Your task to perform on an android device: Go to location settings Image 0: 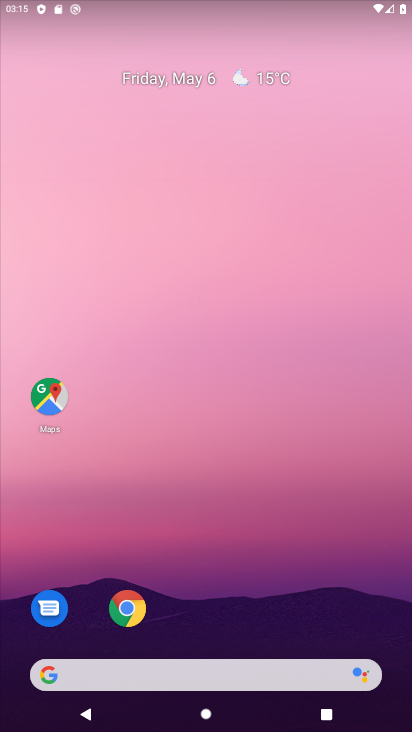
Step 0: drag from (233, 669) to (247, 235)
Your task to perform on an android device: Go to location settings Image 1: 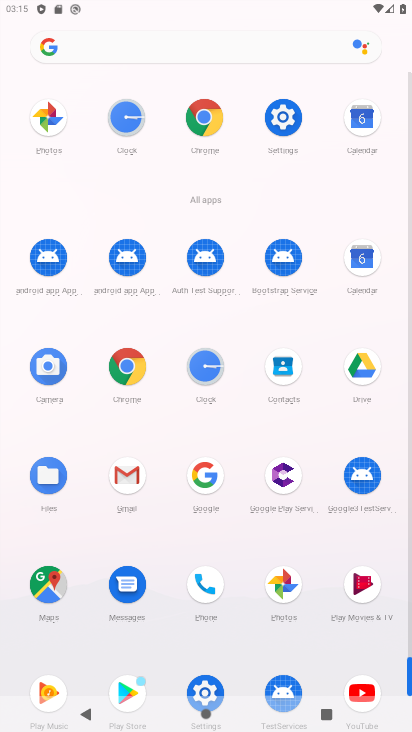
Step 1: click (290, 126)
Your task to perform on an android device: Go to location settings Image 2: 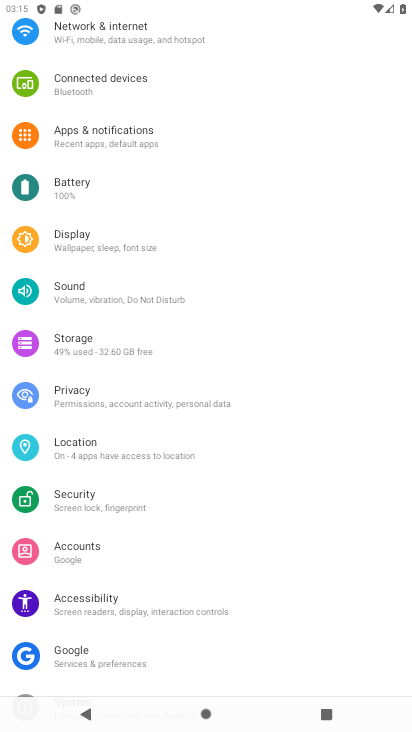
Step 2: click (154, 453)
Your task to perform on an android device: Go to location settings Image 3: 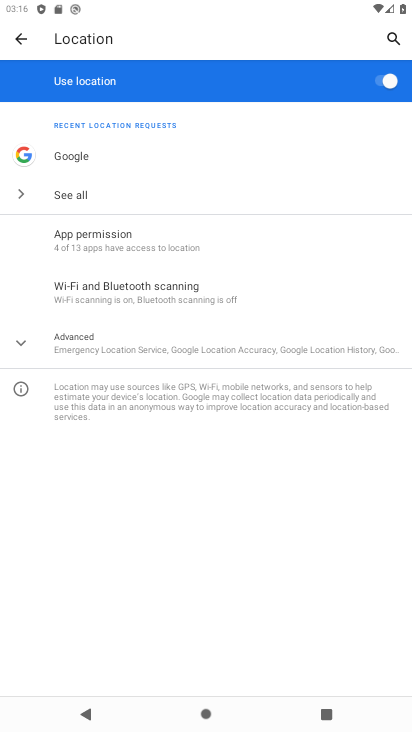
Step 3: task complete